Your task to perform on an android device: open sync settings in chrome Image 0: 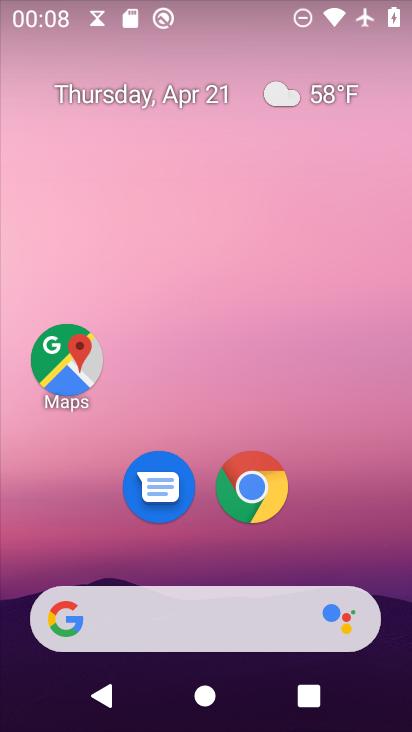
Step 0: drag from (373, 515) to (206, 26)
Your task to perform on an android device: open sync settings in chrome Image 1: 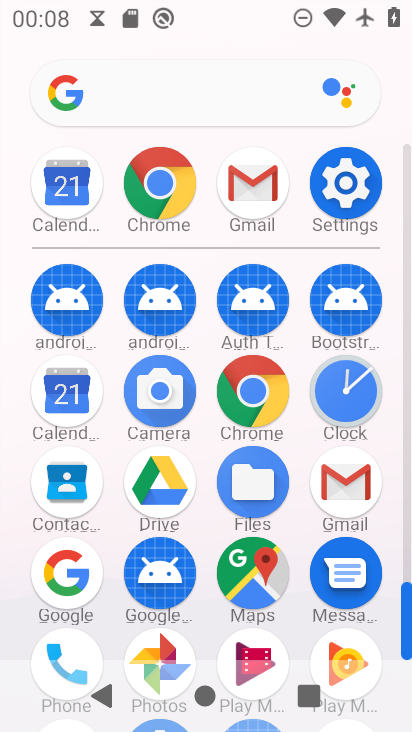
Step 1: click (155, 180)
Your task to perform on an android device: open sync settings in chrome Image 2: 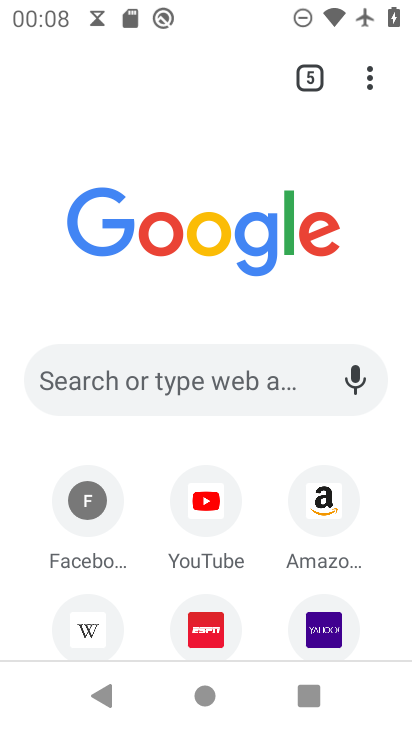
Step 2: drag from (375, 75) to (95, 554)
Your task to perform on an android device: open sync settings in chrome Image 3: 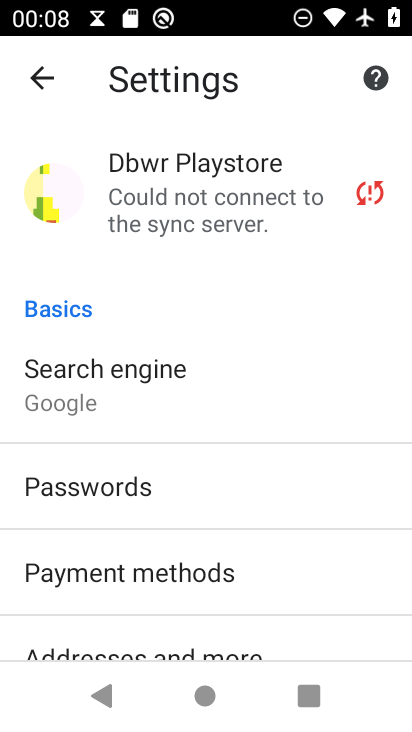
Step 3: click (190, 257)
Your task to perform on an android device: open sync settings in chrome Image 4: 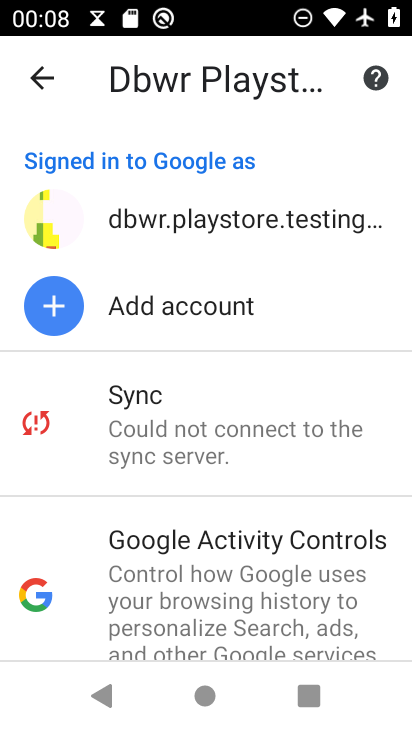
Step 4: drag from (293, 483) to (294, 245)
Your task to perform on an android device: open sync settings in chrome Image 5: 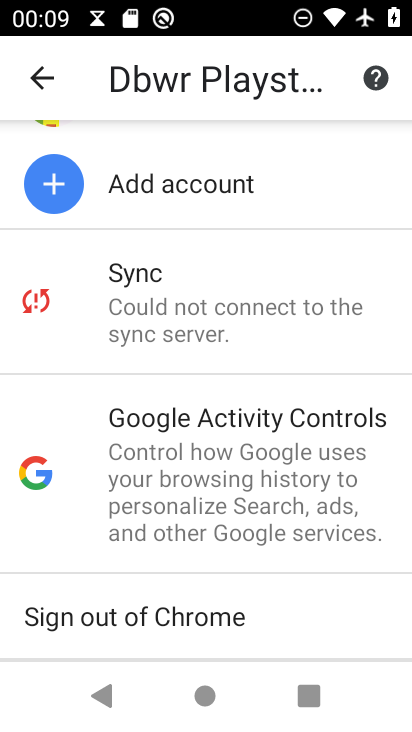
Step 5: drag from (341, 487) to (336, 378)
Your task to perform on an android device: open sync settings in chrome Image 6: 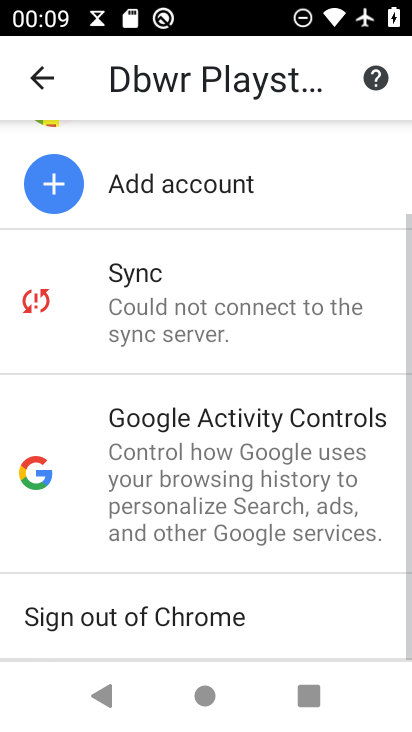
Step 6: click (257, 257)
Your task to perform on an android device: open sync settings in chrome Image 7: 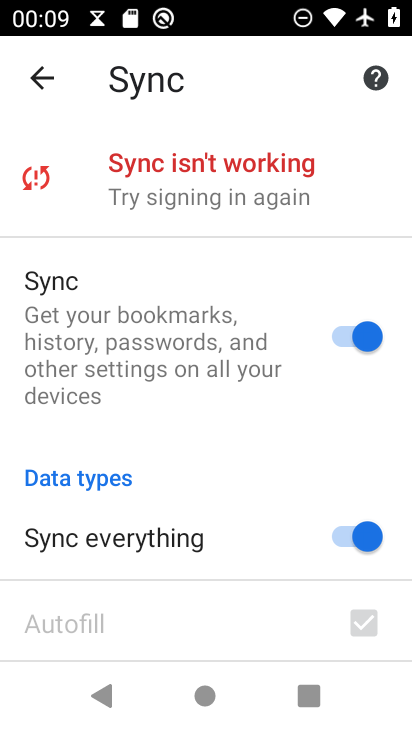
Step 7: task complete